Your task to perform on an android device: toggle translation in the chrome app Image 0: 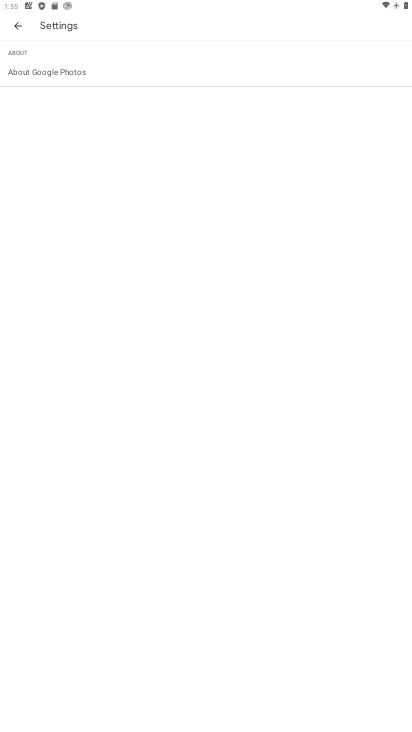
Step 0: press home button
Your task to perform on an android device: toggle translation in the chrome app Image 1: 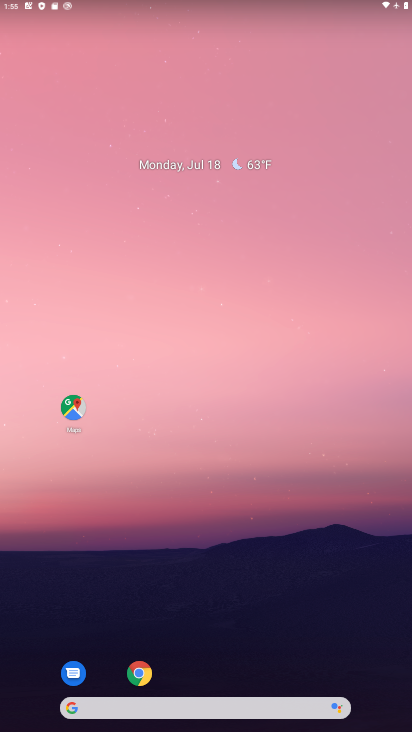
Step 1: drag from (245, 654) to (234, 369)
Your task to perform on an android device: toggle translation in the chrome app Image 2: 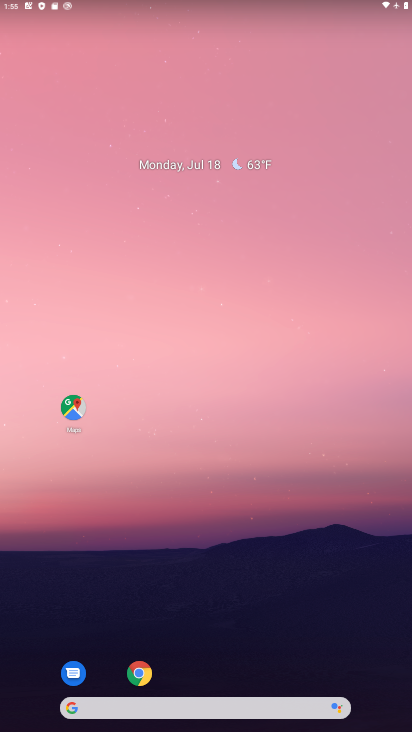
Step 2: drag from (235, 678) to (234, 531)
Your task to perform on an android device: toggle translation in the chrome app Image 3: 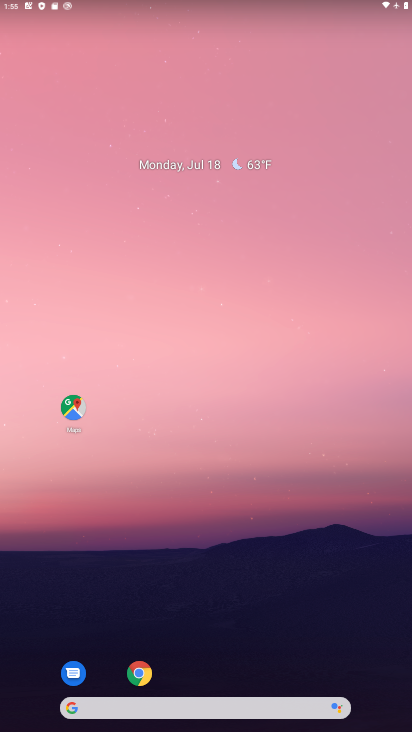
Step 3: drag from (231, 680) to (162, 262)
Your task to perform on an android device: toggle translation in the chrome app Image 4: 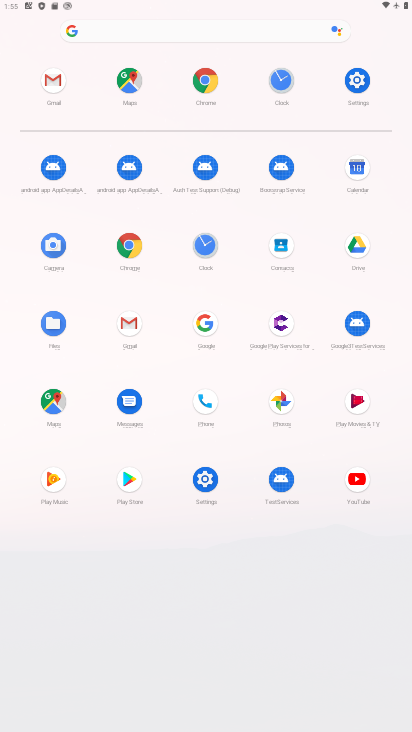
Step 4: click (198, 84)
Your task to perform on an android device: toggle translation in the chrome app Image 5: 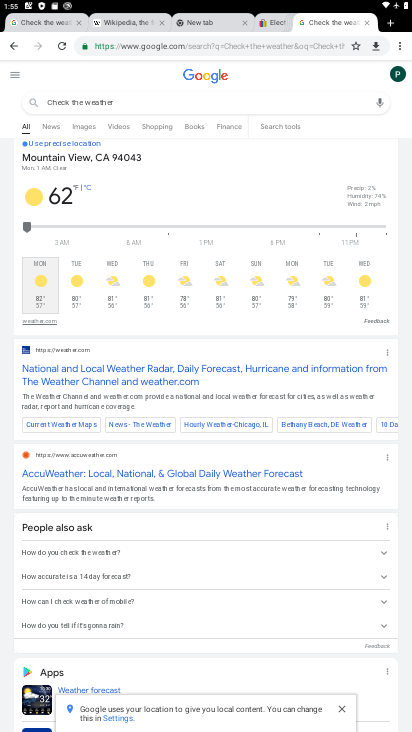
Step 5: click (400, 42)
Your task to perform on an android device: toggle translation in the chrome app Image 6: 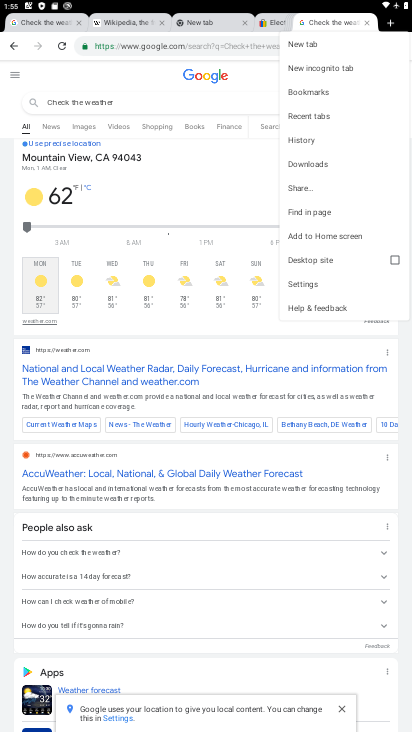
Step 6: click (313, 283)
Your task to perform on an android device: toggle translation in the chrome app Image 7: 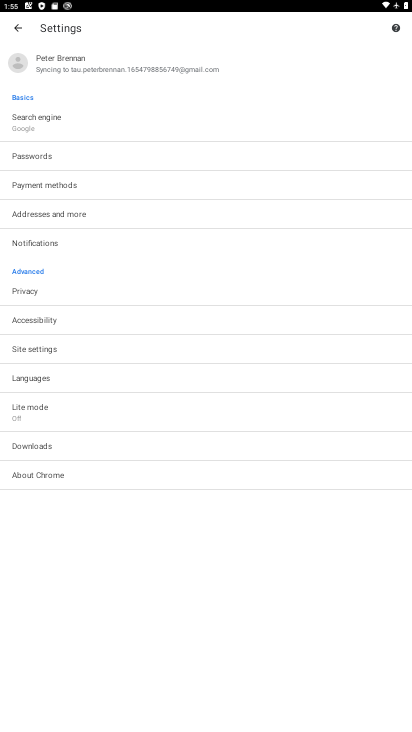
Step 7: click (83, 353)
Your task to perform on an android device: toggle translation in the chrome app Image 8: 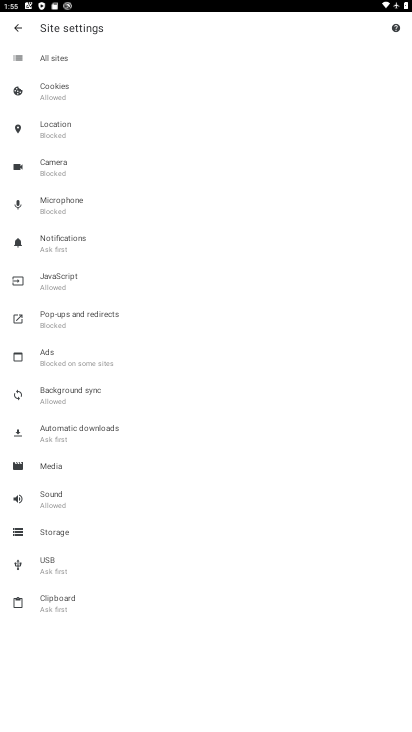
Step 8: click (19, 38)
Your task to perform on an android device: toggle translation in the chrome app Image 9: 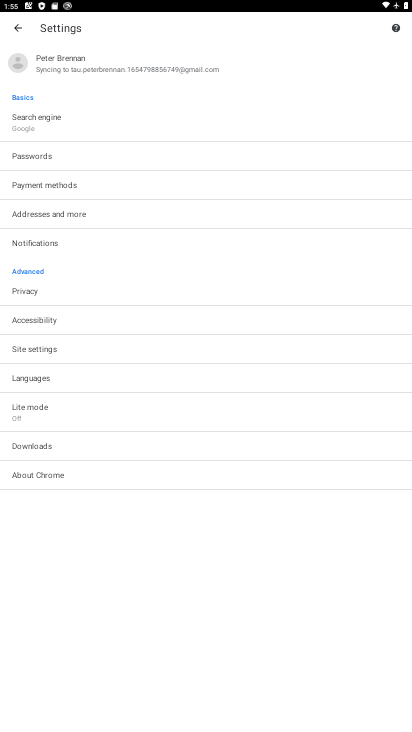
Step 9: click (72, 388)
Your task to perform on an android device: toggle translation in the chrome app Image 10: 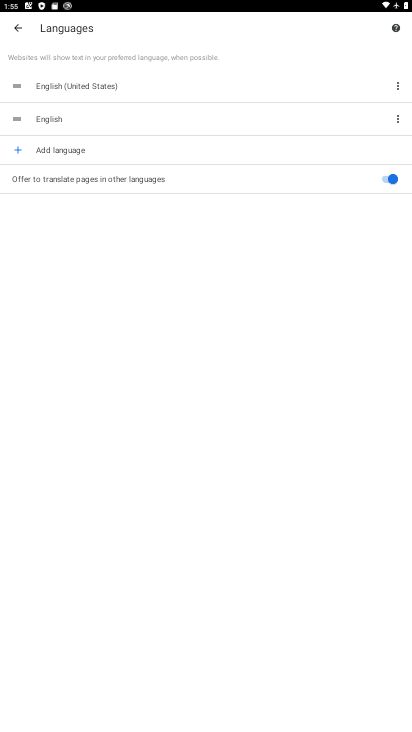
Step 10: click (394, 184)
Your task to perform on an android device: toggle translation in the chrome app Image 11: 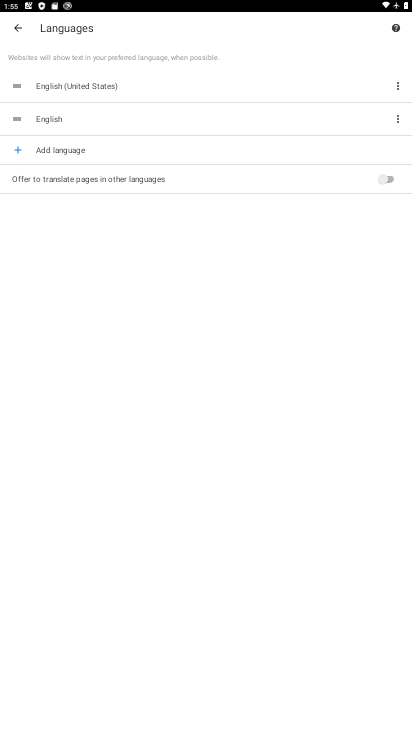
Step 11: task complete